Your task to perform on an android device: visit the assistant section in the google photos Image 0: 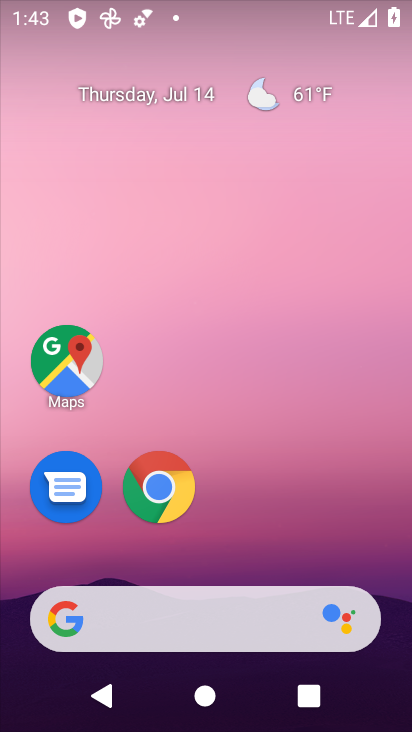
Step 0: drag from (343, 533) to (356, 108)
Your task to perform on an android device: visit the assistant section in the google photos Image 1: 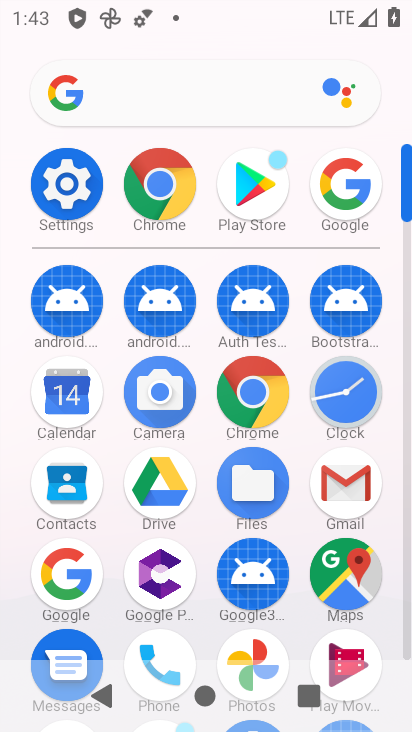
Step 1: drag from (386, 444) to (376, 282)
Your task to perform on an android device: visit the assistant section in the google photos Image 2: 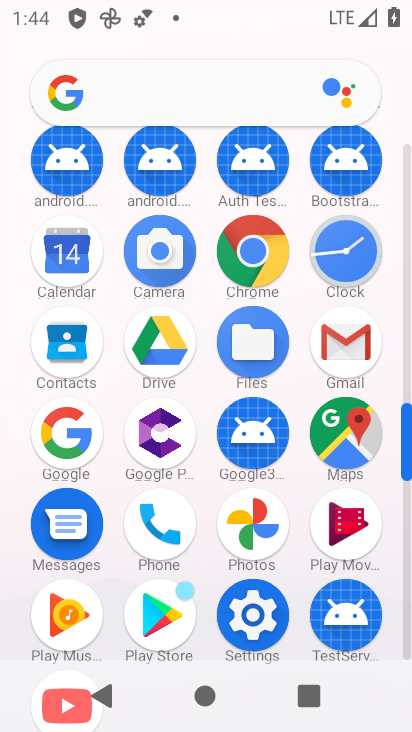
Step 2: click (254, 529)
Your task to perform on an android device: visit the assistant section in the google photos Image 3: 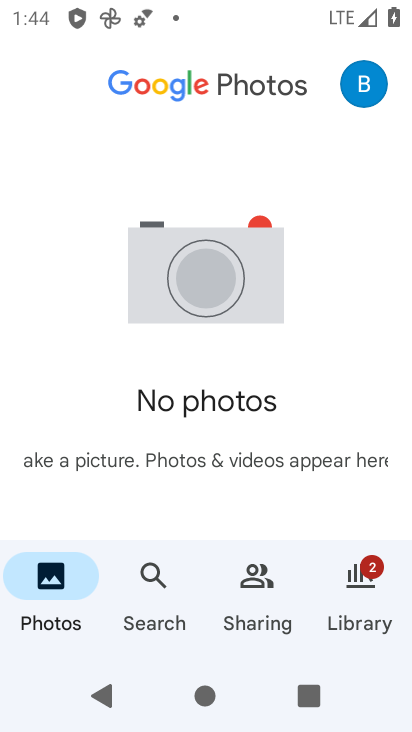
Step 3: click (369, 593)
Your task to perform on an android device: visit the assistant section in the google photos Image 4: 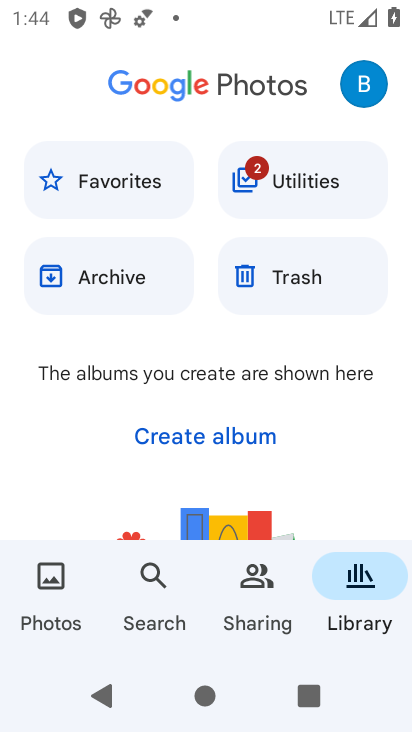
Step 4: task complete